Your task to perform on an android device: Open Google Maps and go to "Timeline" Image 0: 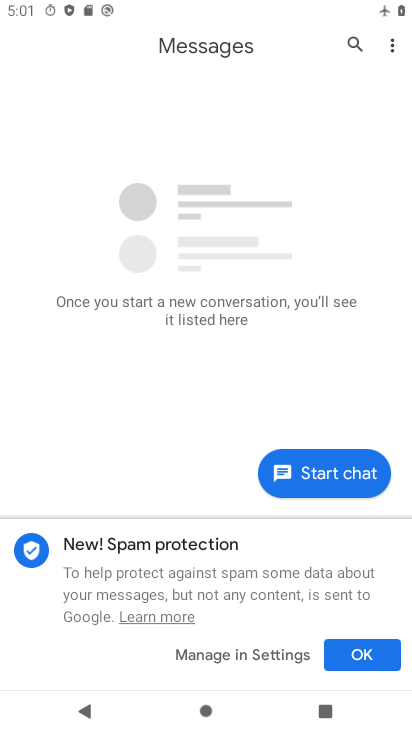
Step 0: press home button
Your task to perform on an android device: Open Google Maps and go to "Timeline" Image 1: 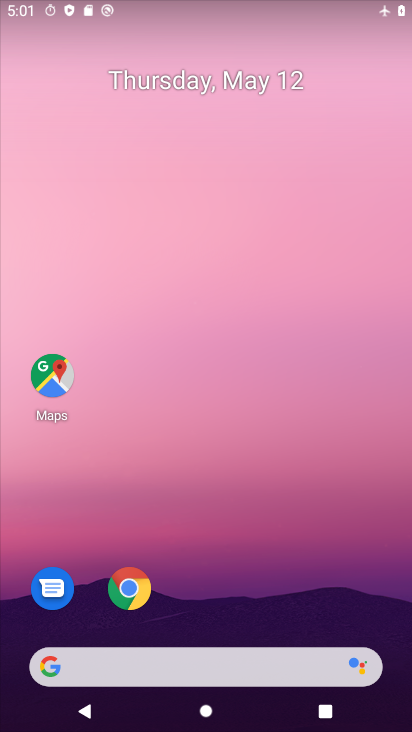
Step 1: drag from (231, 518) to (297, 35)
Your task to perform on an android device: Open Google Maps and go to "Timeline" Image 2: 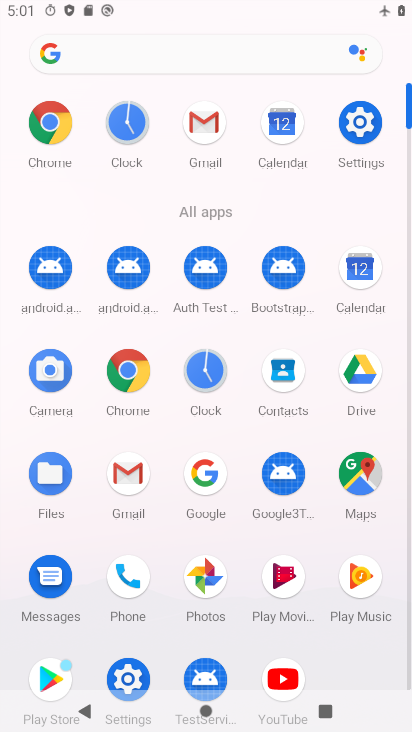
Step 2: click (369, 485)
Your task to perform on an android device: Open Google Maps and go to "Timeline" Image 3: 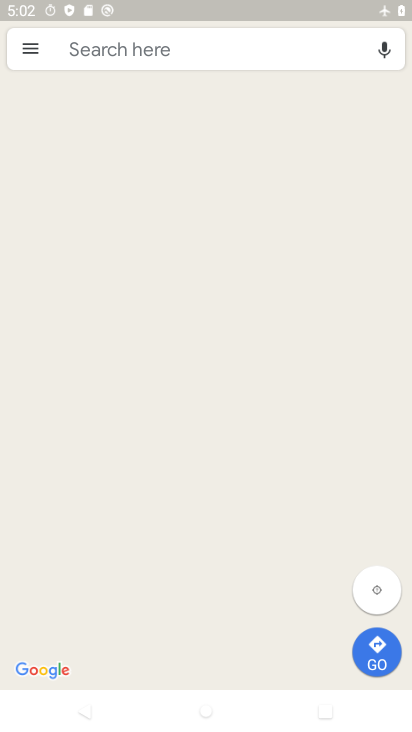
Step 3: click (27, 33)
Your task to perform on an android device: Open Google Maps and go to "Timeline" Image 4: 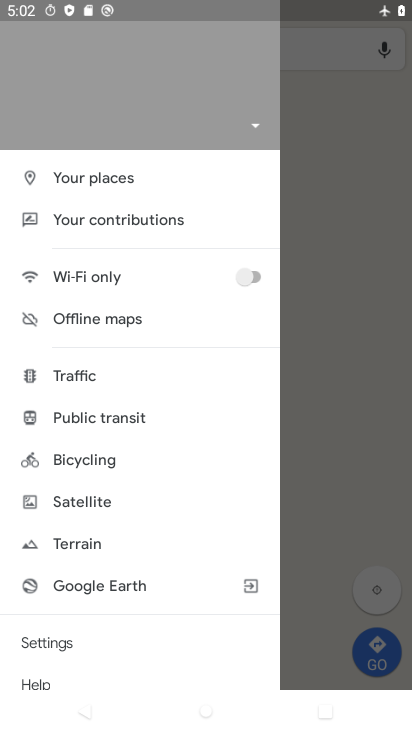
Step 4: task complete